Your task to perform on an android device: read, delete, or share a saved page in the chrome app Image 0: 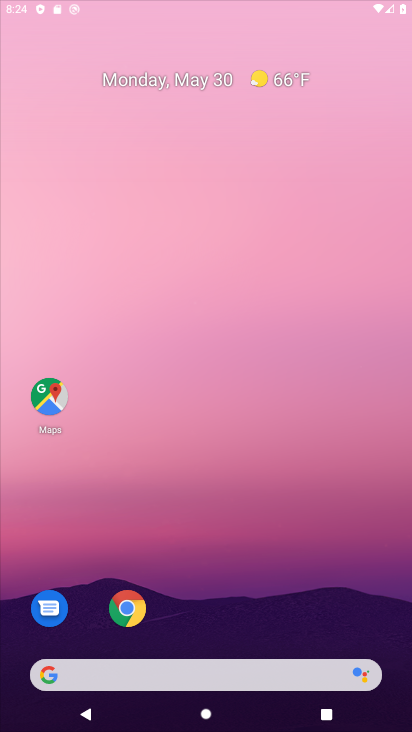
Step 0: click (131, 612)
Your task to perform on an android device: read, delete, or share a saved page in the chrome app Image 1: 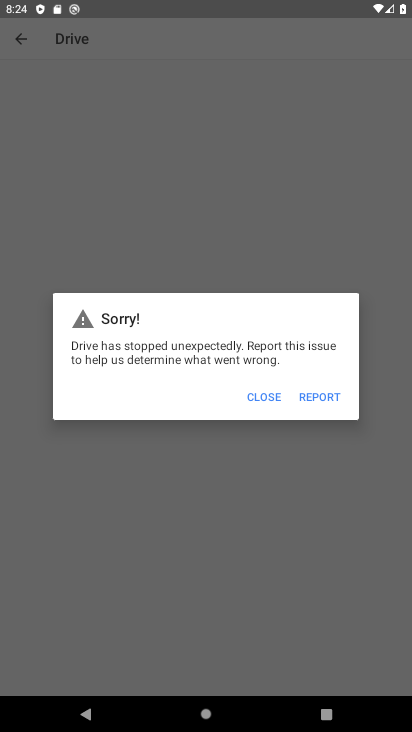
Step 1: press home button
Your task to perform on an android device: read, delete, or share a saved page in the chrome app Image 2: 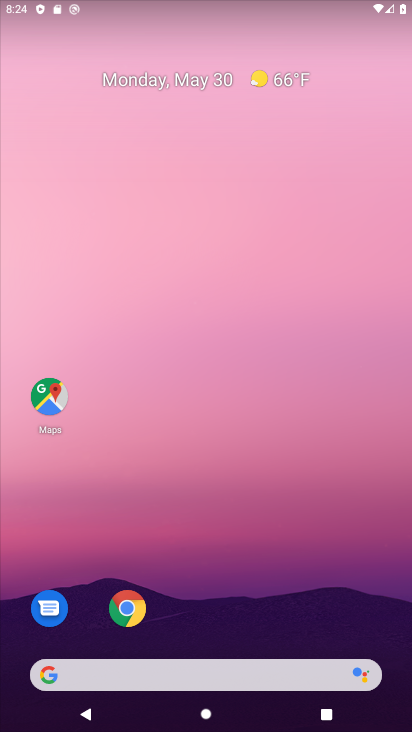
Step 2: click (126, 614)
Your task to perform on an android device: read, delete, or share a saved page in the chrome app Image 3: 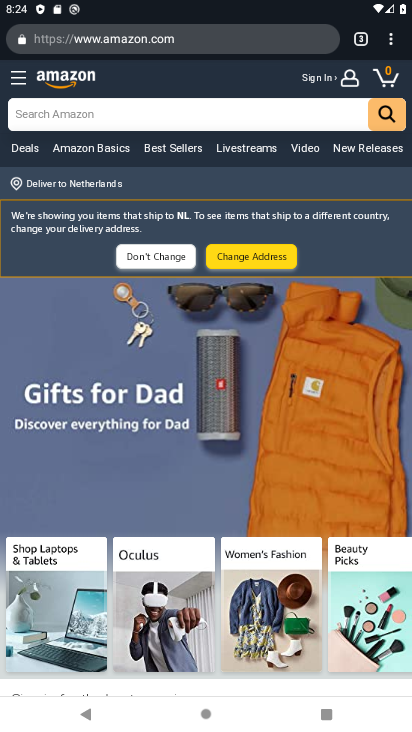
Step 3: click (394, 47)
Your task to perform on an android device: read, delete, or share a saved page in the chrome app Image 4: 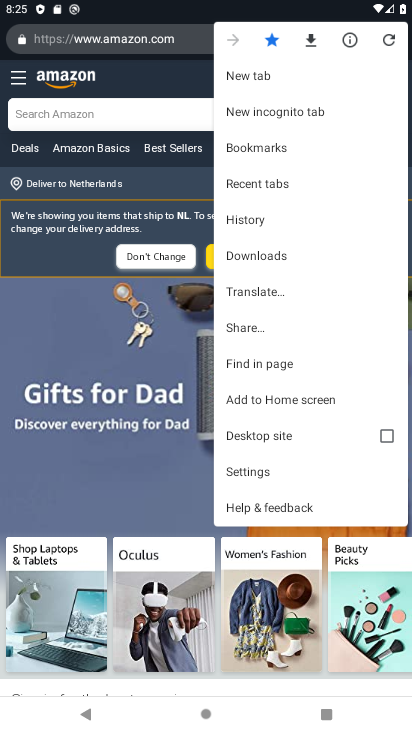
Step 4: click (260, 254)
Your task to perform on an android device: read, delete, or share a saved page in the chrome app Image 5: 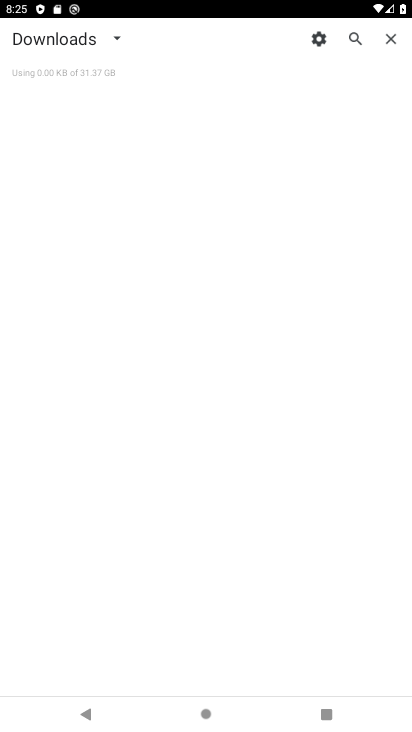
Step 5: click (116, 35)
Your task to perform on an android device: read, delete, or share a saved page in the chrome app Image 6: 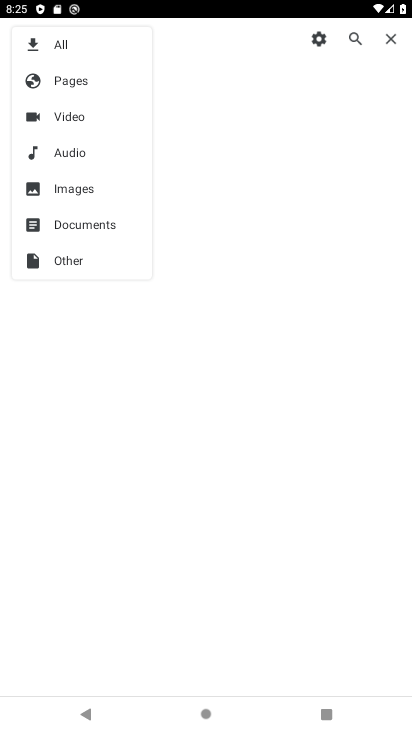
Step 6: click (72, 75)
Your task to perform on an android device: read, delete, or share a saved page in the chrome app Image 7: 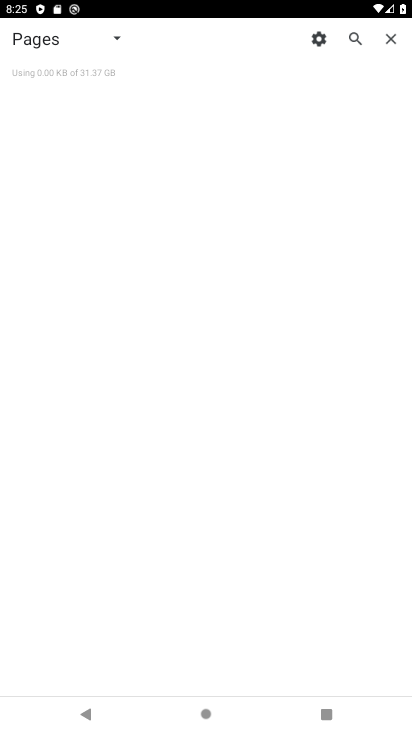
Step 7: task complete